Your task to perform on an android device: Open wifi settings Image 0: 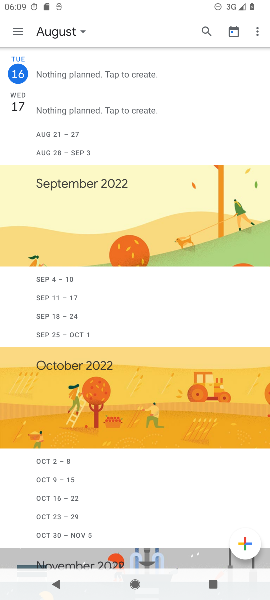
Step 0: press home button
Your task to perform on an android device: Open wifi settings Image 1: 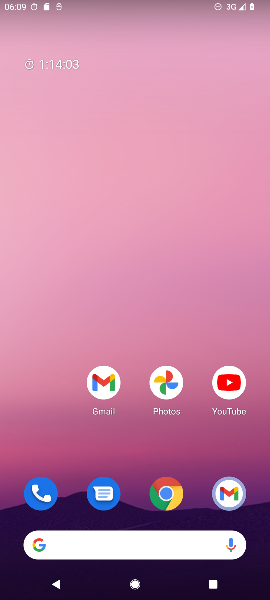
Step 1: drag from (54, 450) to (52, 71)
Your task to perform on an android device: Open wifi settings Image 2: 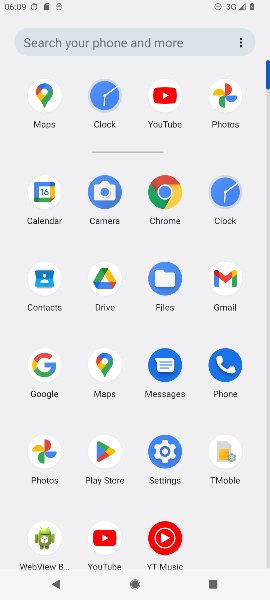
Step 2: click (163, 455)
Your task to perform on an android device: Open wifi settings Image 3: 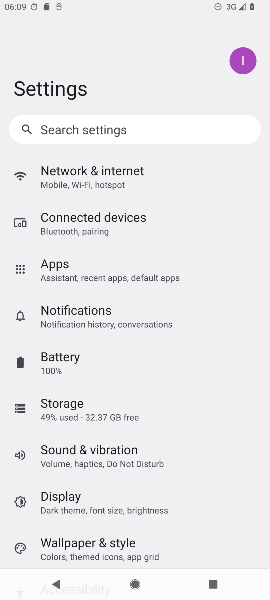
Step 3: drag from (210, 358) to (217, 314)
Your task to perform on an android device: Open wifi settings Image 4: 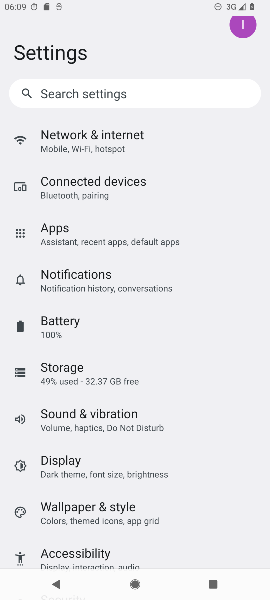
Step 4: drag from (224, 458) to (221, 294)
Your task to perform on an android device: Open wifi settings Image 5: 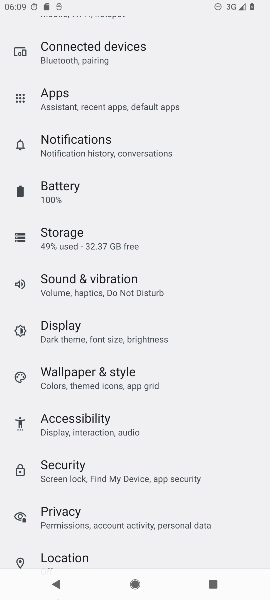
Step 5: drag from (212, 450) to (222, 273)
Your task to perform on an android device: Open wifi settings Image 6: 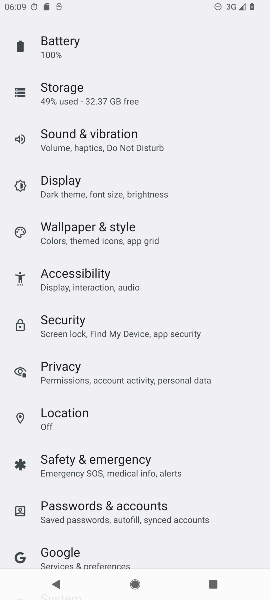
Step 6: drag from (227, 438) to (227, 277)
Your task to perform on an android device: Open wifi settings Image 7: 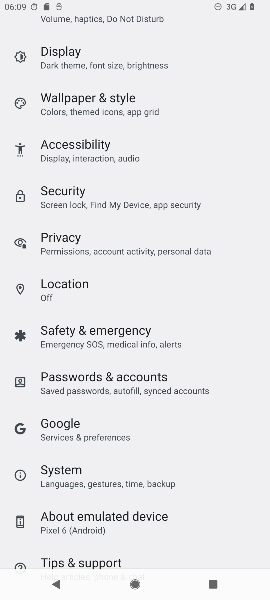
Step 7: drag from (223, 465) to (229, 247)
Your task to perform on an android device: Open wifi settings Image 8: 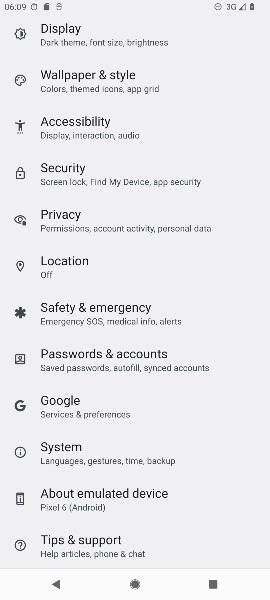
Step 8: drag from (235, 224) to (243, 373)
Your task to perform on an android device: Open wifi settings Image 9: 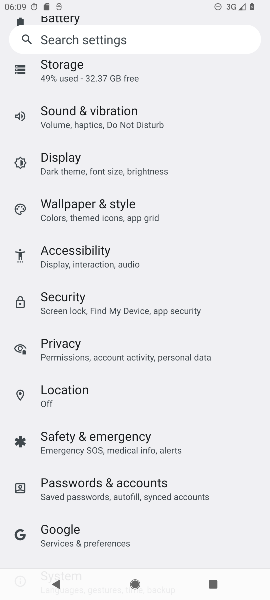
Step 9: drag from (216, 160) to (226, 338)
Your task to perform on an android device: Open wifi settings Image 10: 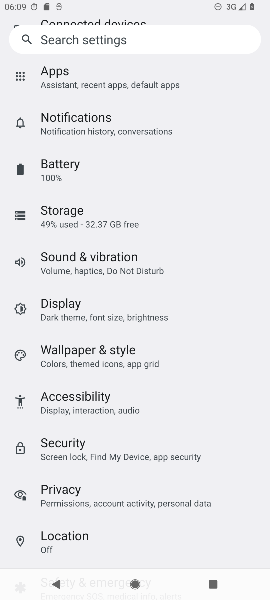
Step 10: drag from (222, 143) to (221, 346)
Your task to perform on an android device: Open wifi settings Image 11: 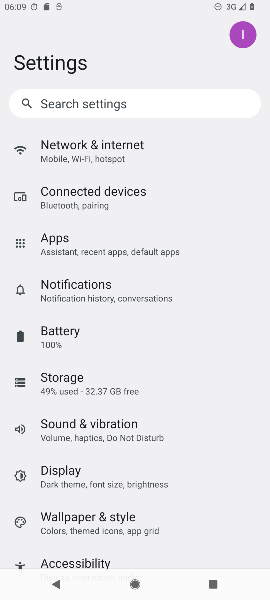
Step 11: click (118, 155)
Your task to perform on an android device: Open wifi settings Image 12: 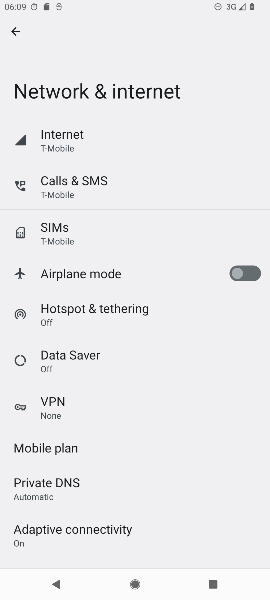
Step 12: click (80, 144)
Your task to perform on an android device: Open wifi settings Image 13: 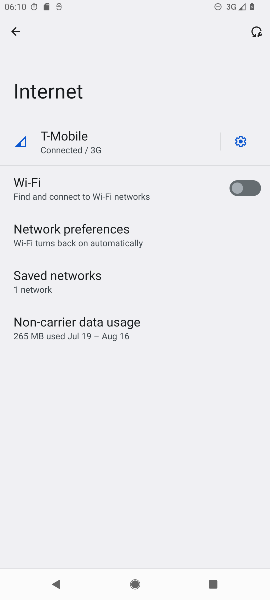
Step 13: task complete